Your task to perform on an android device: open a bookmark in the chrome app Image 0: 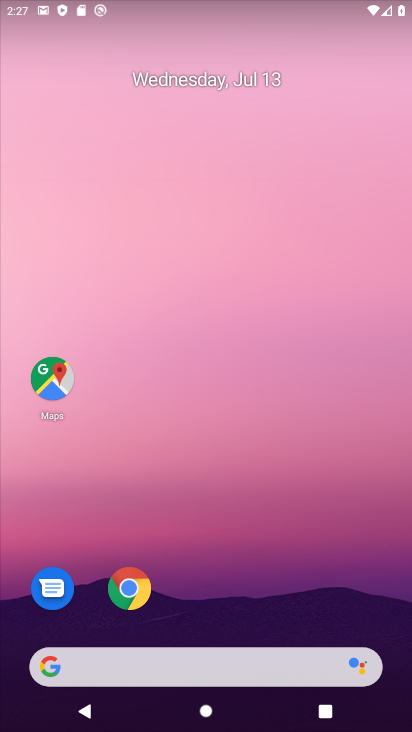
Step 0: drag from (253, 642) to (197, 355)
Your task to perform on an android device: open a bookmark in the chrome app Image 1: 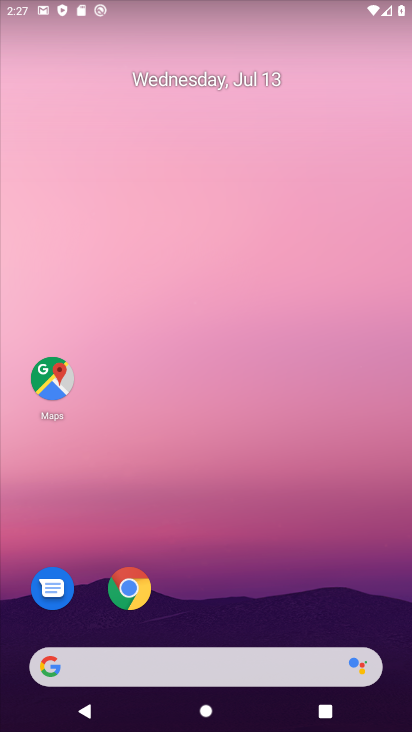
Step 1: drag from (257, 583) to (169, 248)
Your task to perform on an android device: open a bookmark in the chrome app Image 2: 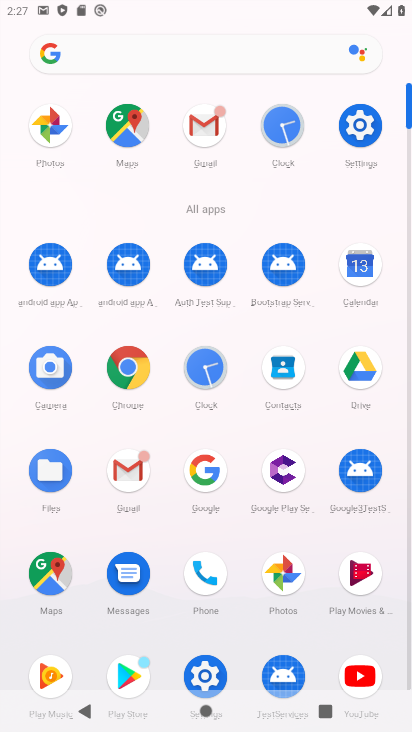
Step 2: click (117, 368)
Your task to perform on an android device: open a bookmark in the chrome app Image 3: 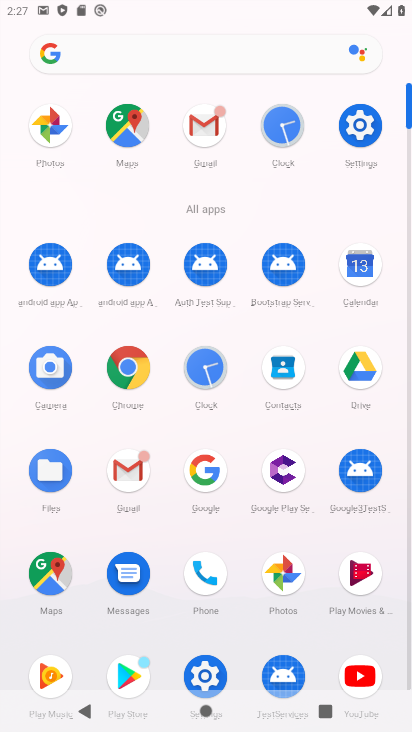
Step 3: click (120, 367)
Your task to perform on an android device: open a bookmark in the chrome app Image 4: 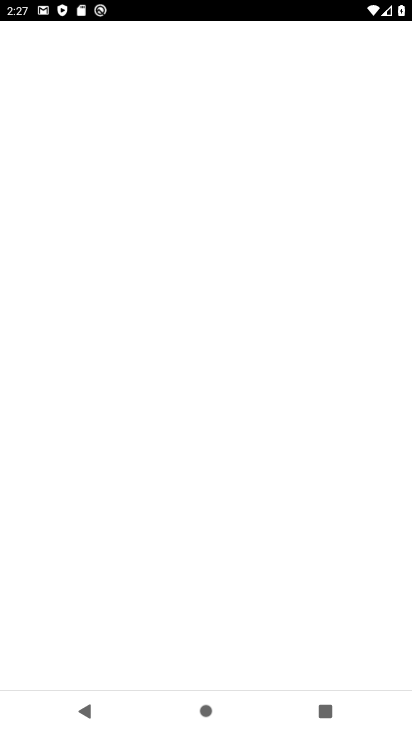
Step 4: click (125, 364)
Your task to perform on an android device: open a bookmark in the chrome app Image 5: 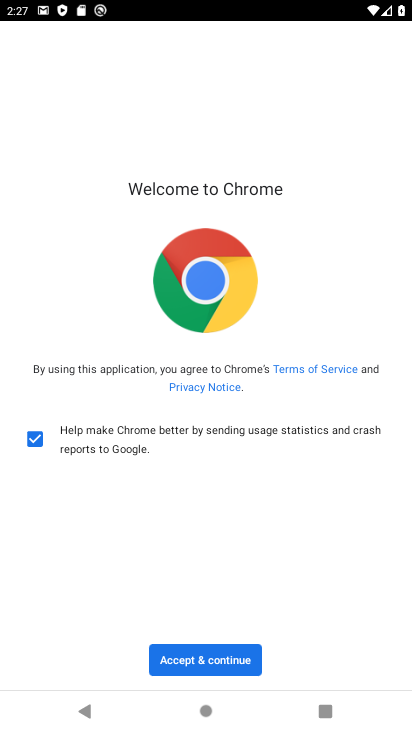
Step 5: click (231, 655)
Your task to perform on an android device: open a bookmark in the chrome app Image 6: 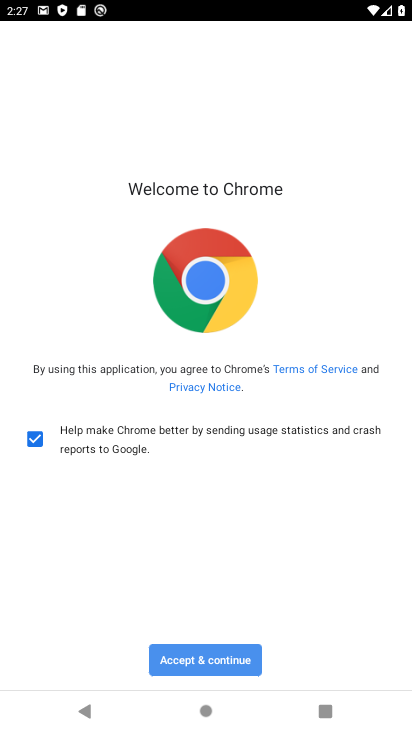
Step 6: click (231, 655)
Your task to perform on an android device: open a bookmark in the chrome app Image 7: 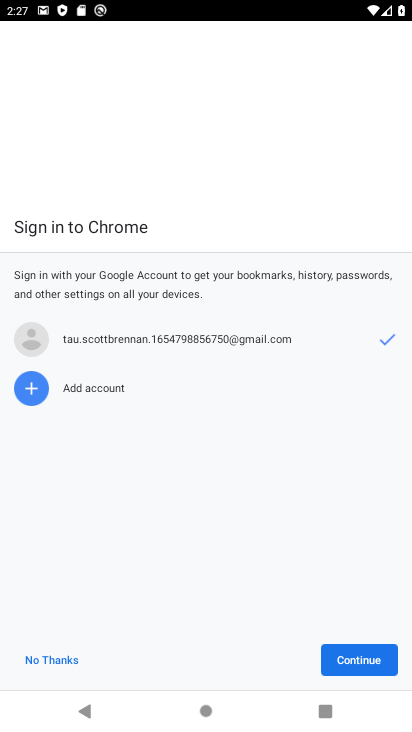
Step 7: click (388, 662)
Your task to perform on an android device: open a bookmark in the chrome app Image 8: 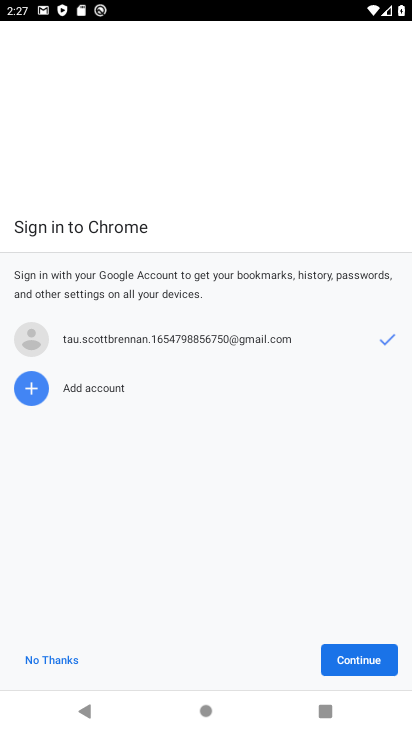
Step 8: click (389, 661)
Your task to perform on an android device: open a bookmark in the chrome app Image 9: 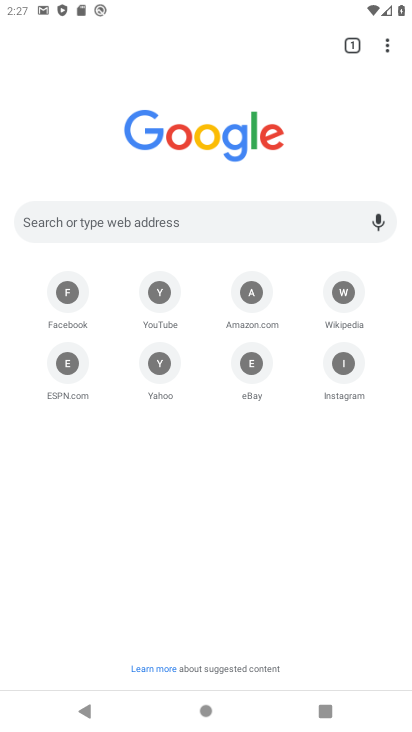
Step 9: drag from (386, 40) to (216, 166)
Your task to perform on an android device: open a bookmark in the chrome app Image 10: 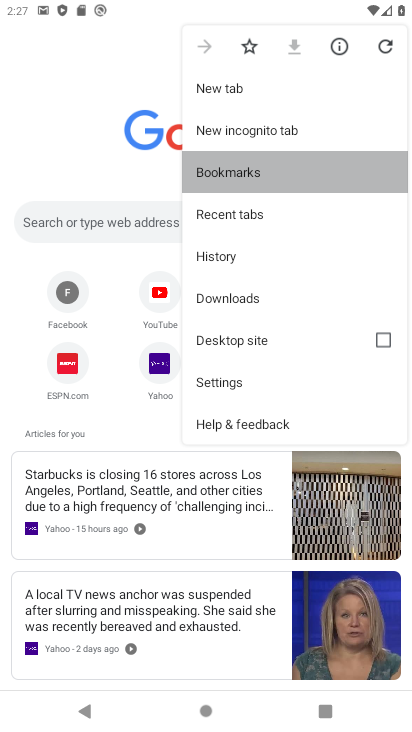
Step 10: click (216, 166)
Your task to perform on an android device: open a bookmark in the chrome app Image 11: 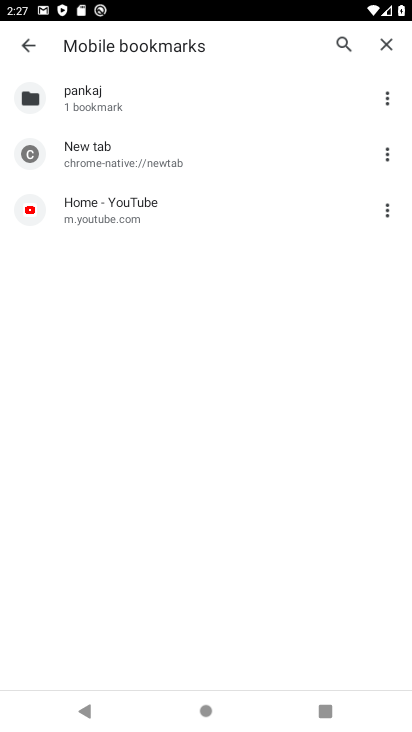
Step 11: task complete